Your task to perform on an android device: turn on the 12-hour format for clock Image 0: 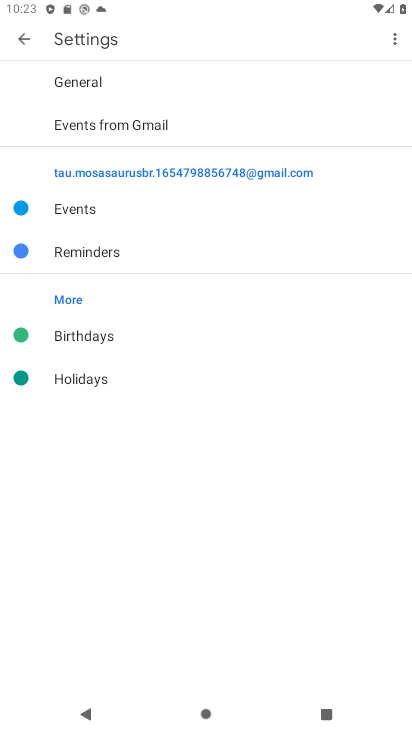
Step 0: press home button
Your task to perform on an android device: turn on the 12-hour format for clock Image 1: 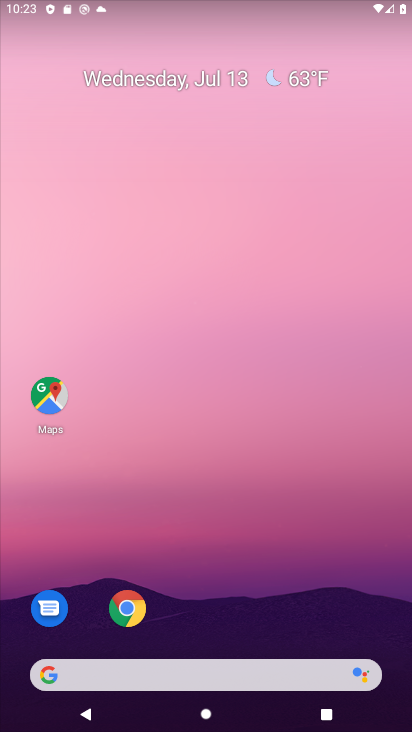
Step 1: drag from (191, 644) to (259, 83)
Your task to perform on an android device: turn on the 12-hour format for clock Image 2: 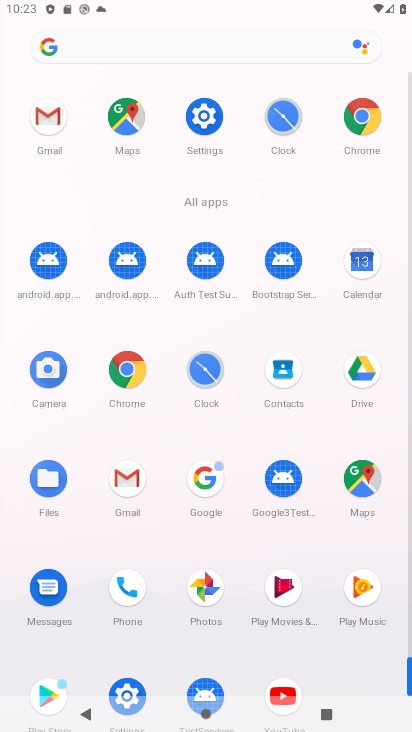
Step 2: drag from (155, 594) to (235, 328)
Your task to perform on an android device: turn on the 12-hour format for clock Image 3: 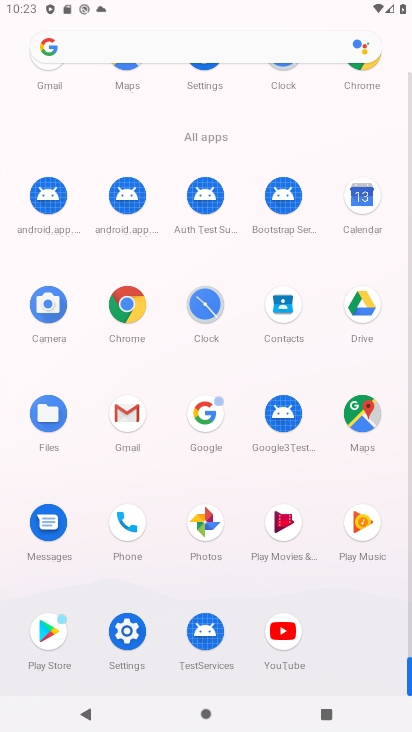
Step 3: click (218, 308)
Your task to perform on an android device: turn on the 12-hour format for clock Image 4: 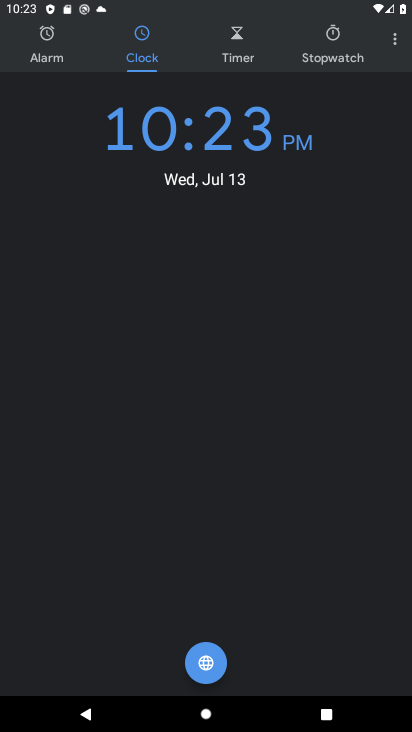
Step 4: click (384, 36)
Your task to perform on an android device: turn on the 12-hour format for clock Image 5: 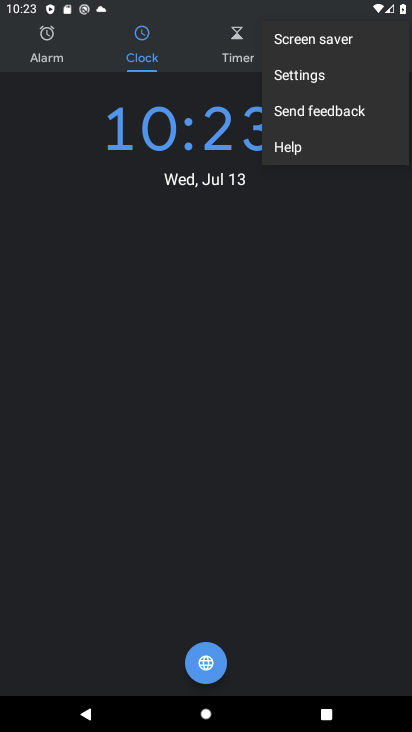
Step 5: click (290, 71)
Your task to perform on an android device: turn on the 12-hour format for clock Image 6: 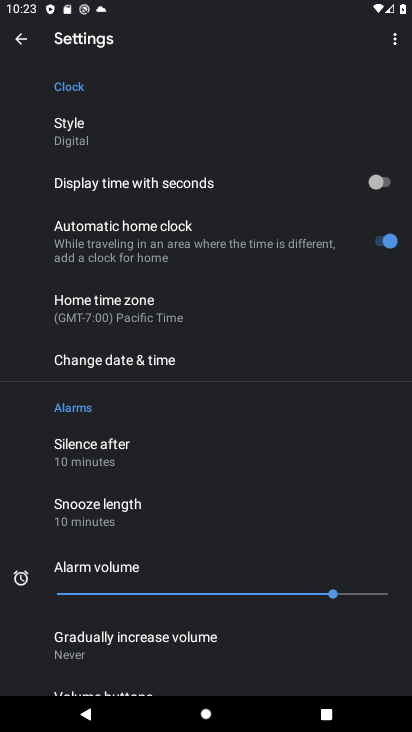
Step 6: click (198, 362)
Your task to perform on an android device: turn on the 12-hour format for clock Image 7: 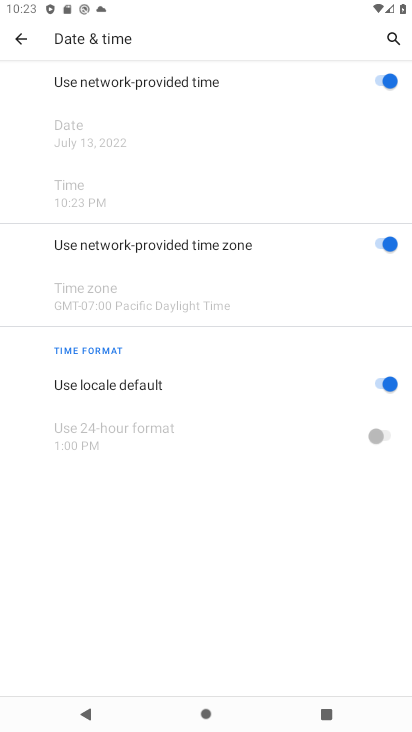
Step 7: task complete